Your task to perform on an android device: open app "NewsBreak: Local News & Alerts" Image 0: 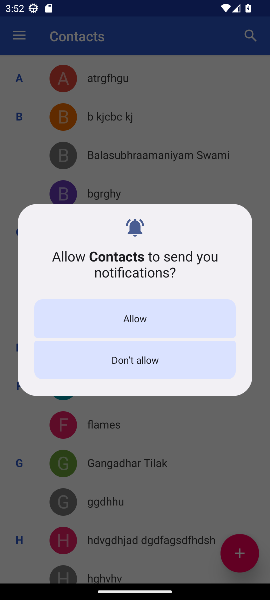
Step 0: press home button
Your task to perform on an android device: open app "NewsBreak: Local News & Alerts" Image 1: 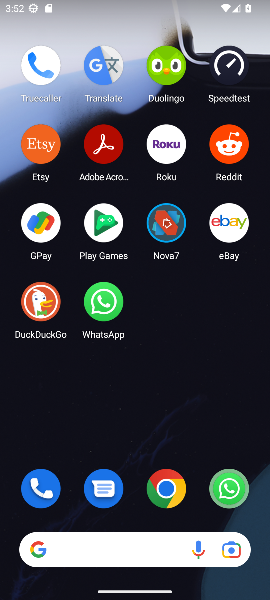
Step 1: drag from (140, 449) to (144, 47)
Your task to perform on an android device: open app "NewsBreak: Local News & Alerts" Image 2: 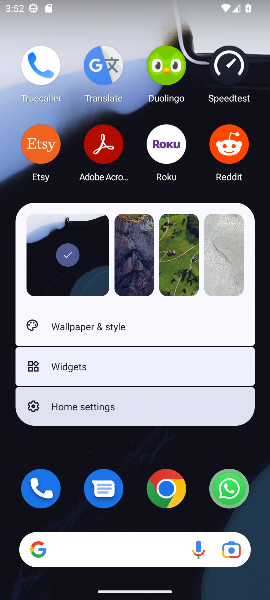
Step 2: click (95, 458)
Your task to perform on an android device: open app "NewsBreak: Local News & Alerts" Image 3: 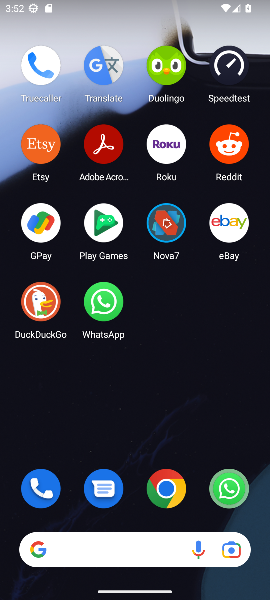
Step 3: drag from (131, 527) to (139, 2)
Your task to perform on an android device: open app "NewsBreak: Local News & Alerts" Image 4: 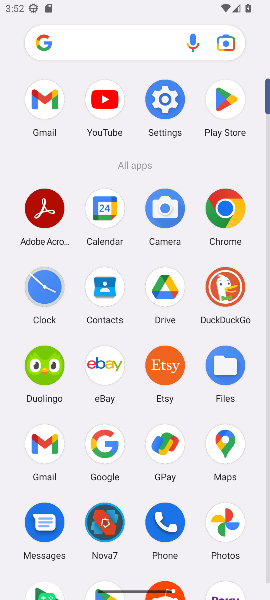
Step 4: click (168, 84)
Your task to perform on an android device: open app "NewsBreak: Local News & Alerts" Image 5: 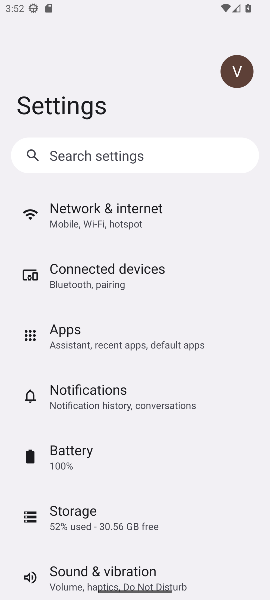
Step 5: press home button
Your task to perform on an android device: open app "NewsBreak: Local News & Alerts" Image 6: 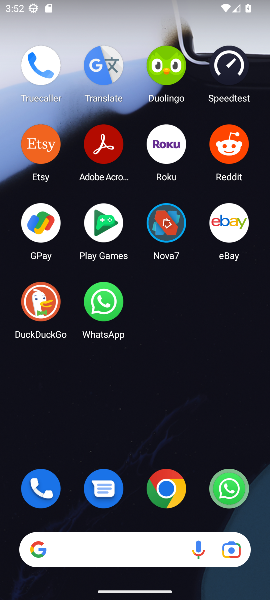
Step 6: drag from (118, 525) to (183, 123)
Your task to perform on an android device: open app "NewsBreak: Local News & Alerts" Image 7: 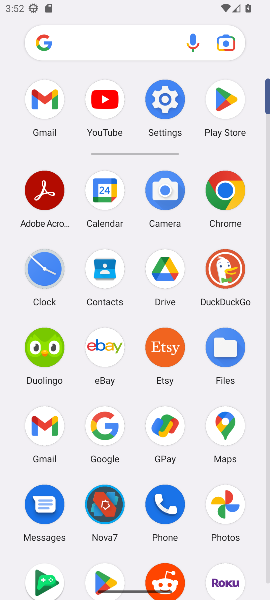
Step 7: click (183, 123)
Your task to perform on an android device: open app "NewsBreak: Local News & Alerts" Image 8: 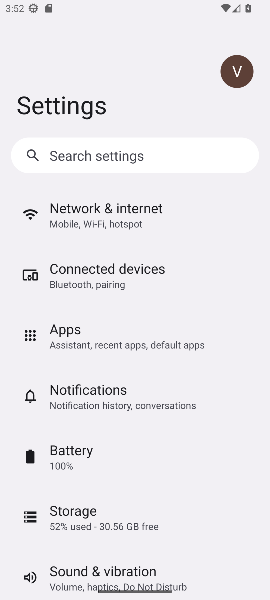
Step 8: press home button
Your task to perform on an android device: open app "NewsBreak: Local News & Alerts" Image 9: 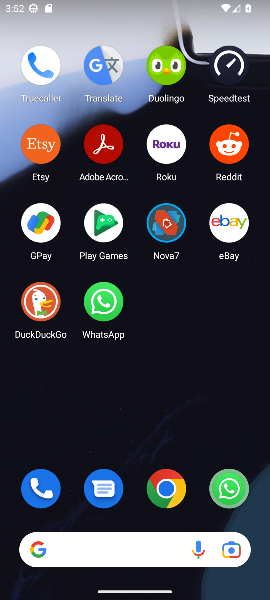
Step 9: drag from (126, 517) to (127, 179)
Your task to perform on an android device: open app "NewsBreak: Local News & Alerts" Image 10: 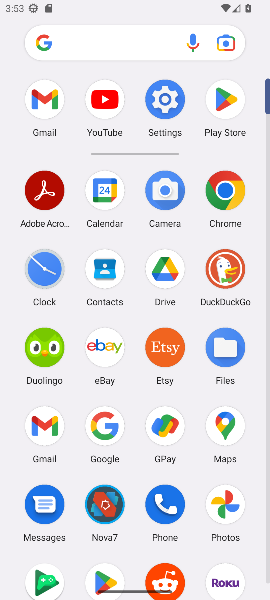
Step 10: click (164, 116)
Your task to perform on an android device: open app "NewsBreak: Local News & Alerts" Image 11: 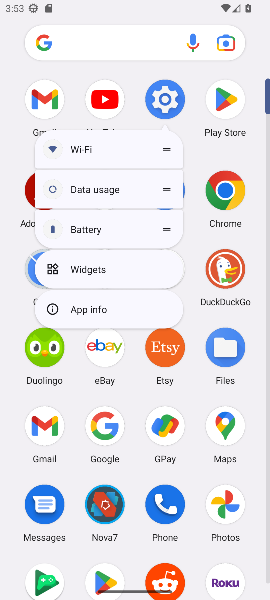
Step 11: click (242, 116)
Your task to perform on an android device: open app "NewsBreak: Local News & Alerts" Image 12: 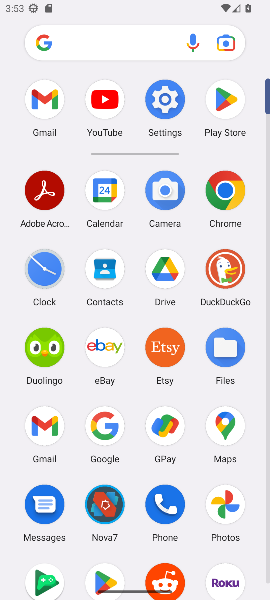
Step 12: click (242, 116)
Your task to perform on an android device: open app "NewsBreak: Local News & Alerts" Image 13: 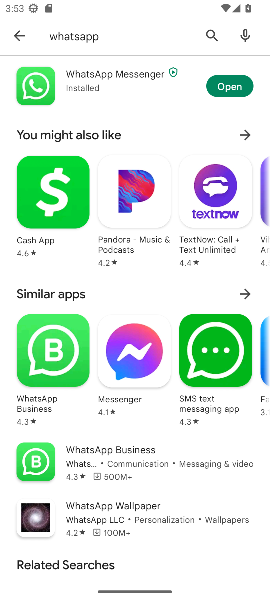
Step 13: click (213, 44)
Your task to perform on an android device: open app "NewsBreak: Local News & Alerts" Image 14: 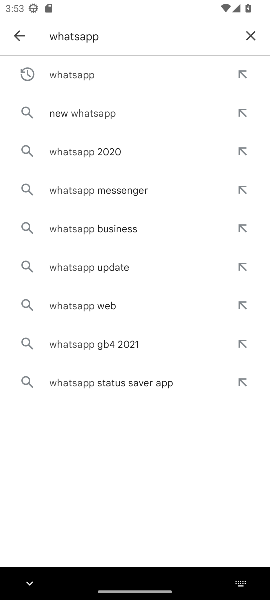
Step 14: click (248, 44)
Your task to perform on an android device: open app "NewsBreak: Local News & Alerts" Image 15: 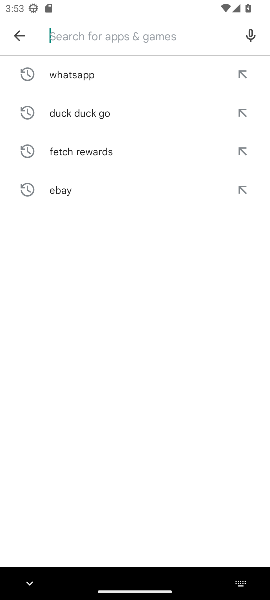
Step 15: type "newsbreak"
Your task to perform on an android device: open app "NewsBreak: Local News & Alerts" Image 16: 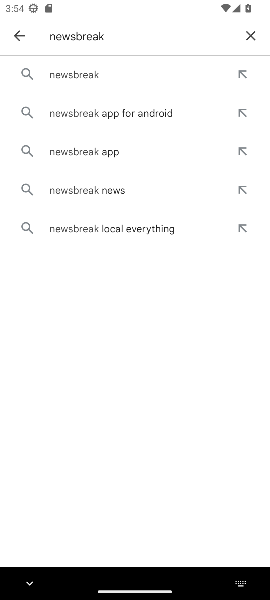
Step 16: click (98, 83)
Your task to perform on an android device: open app "NewsBreak: Local News & Alerts" Image 17: 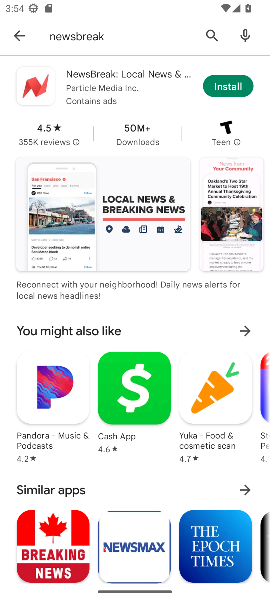
Step 17: click (212, 89)
Your task to perform on an android device: open app "NewsBreak: Local News & Alerts" Image 18: 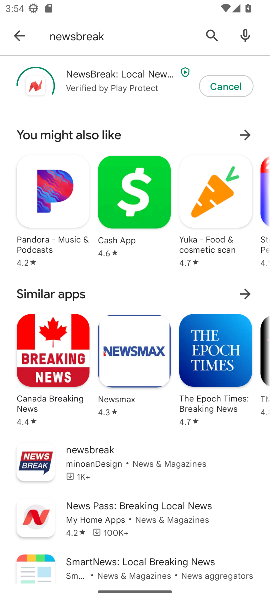
Step 18: task complete